Your task to perform on an android device: uninstall "Booking.com: Hotels and more" Image 0: 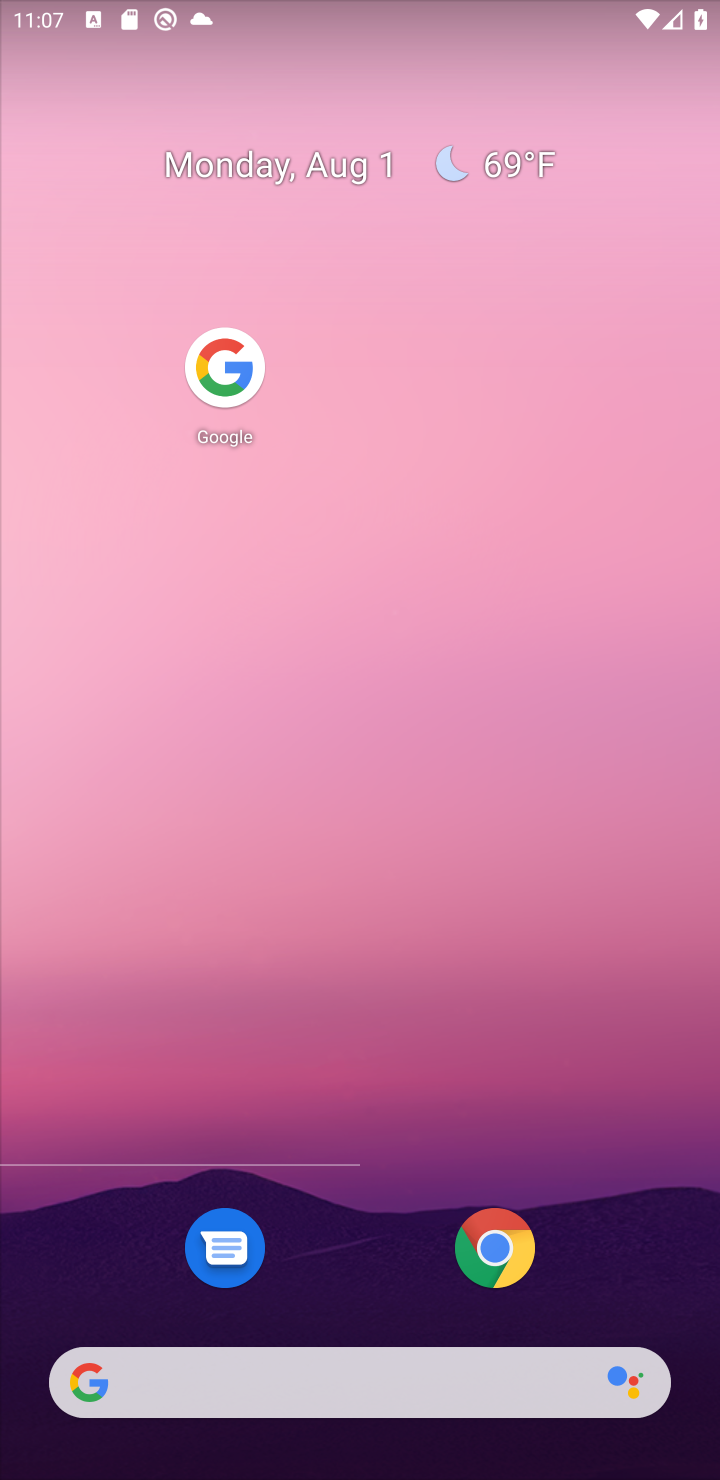
Step 0: drag from (542, 533) to (601, 183)
Your task to perform on an android device: uninstall "Booking.com: Hotels and more" Image 1: 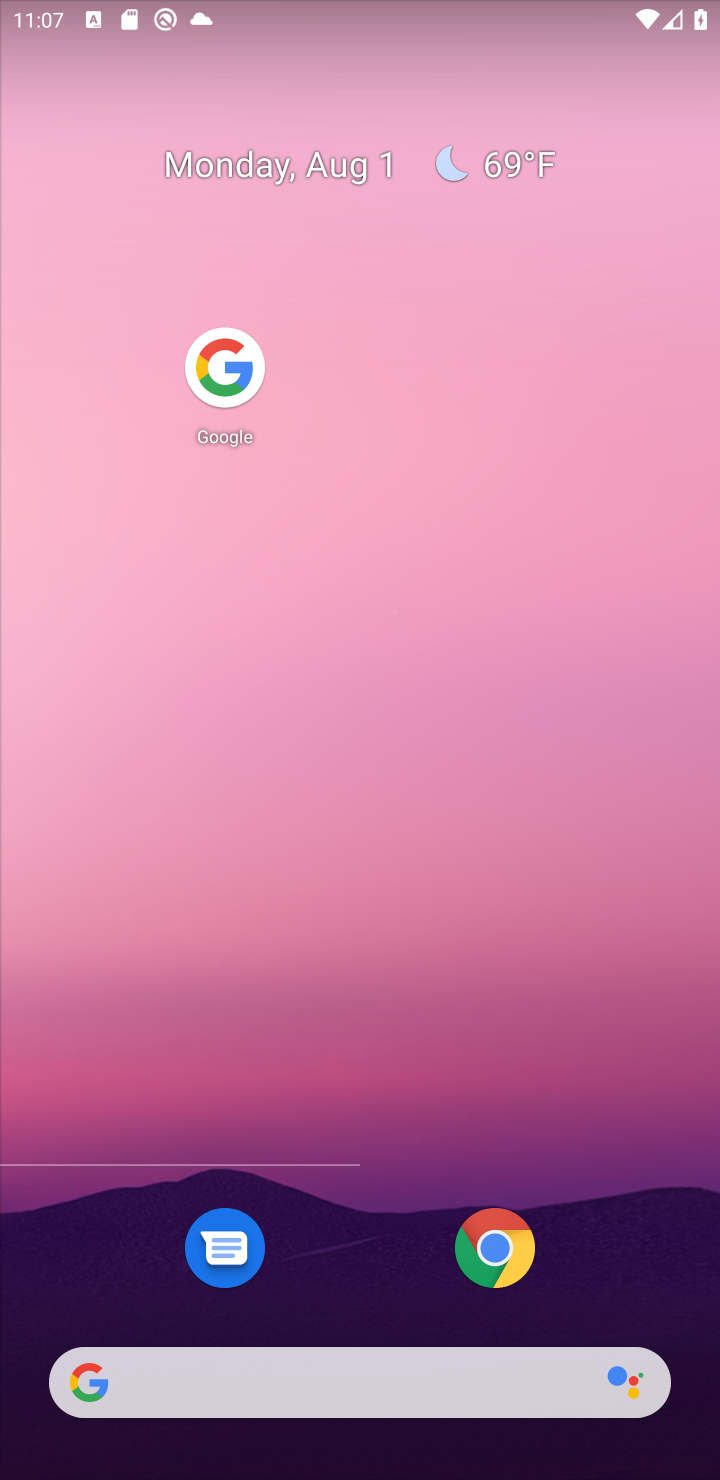
Step 1: drag from (482, 467) to (441, 0)
Your task to perform on an android device: uninstall "Booking.com: Hotels and more" Image 2: 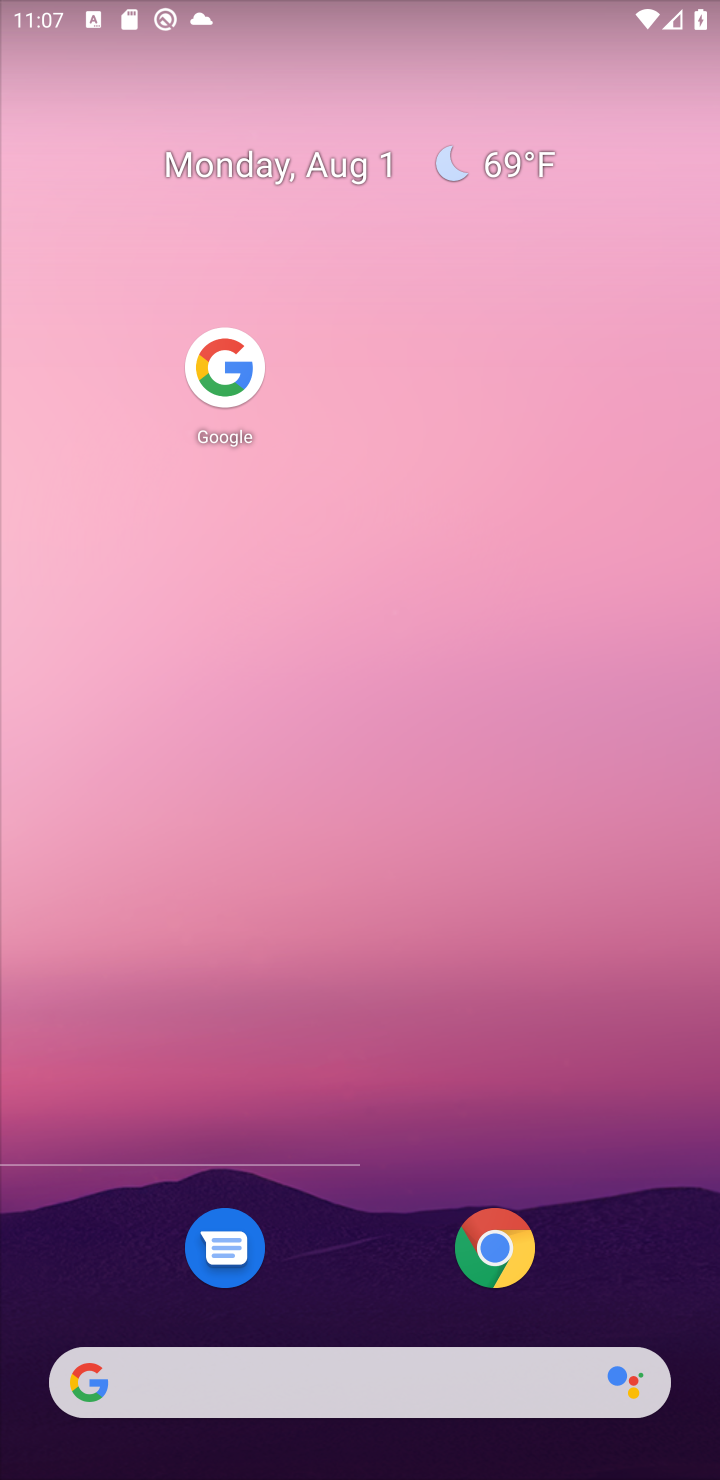
Step 2: drag from (423, 1077) to (549, 4)
Your task to perform on an android device: uninstall "Booking.com: Hotels and more" Image 3: 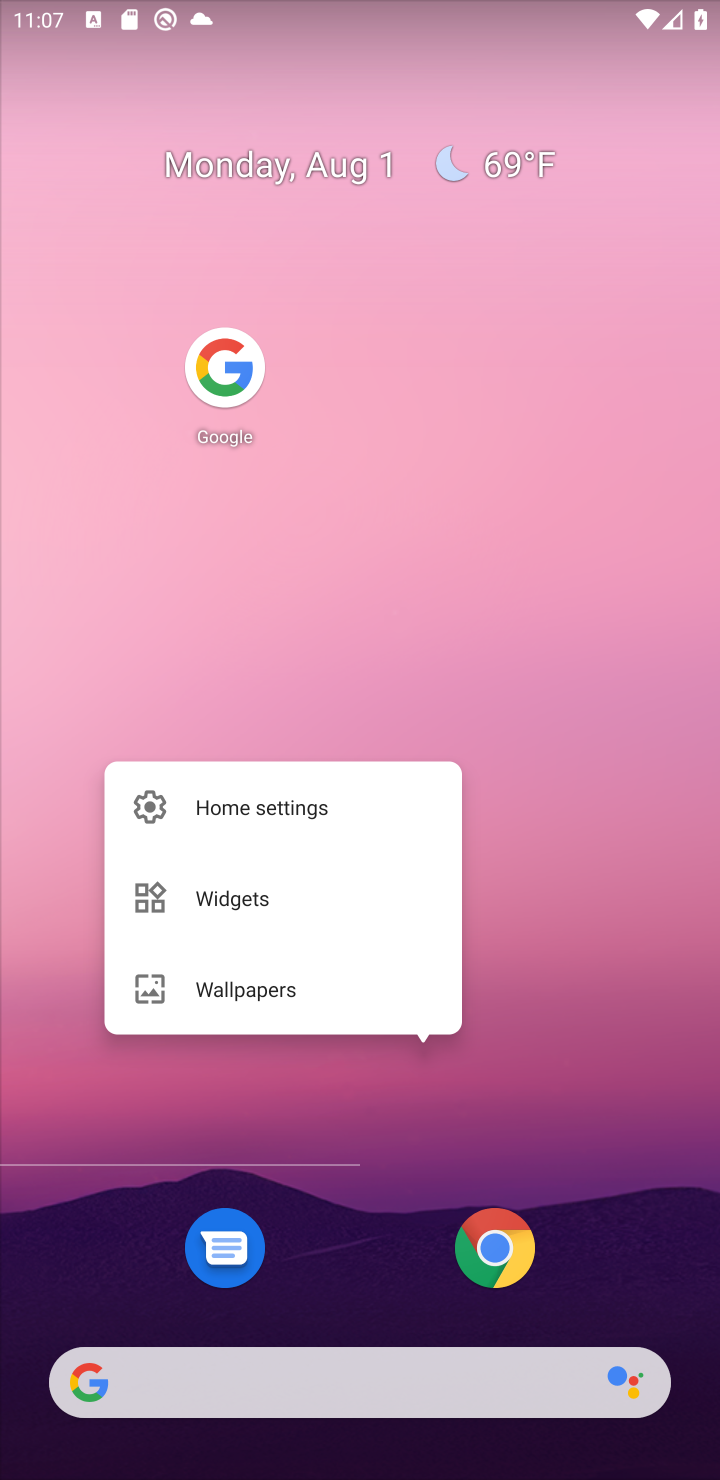
Step 3: click (532, 672)
Your task to perform on an android device: uninstall "Booking.com: Hotels and more" Image 4: 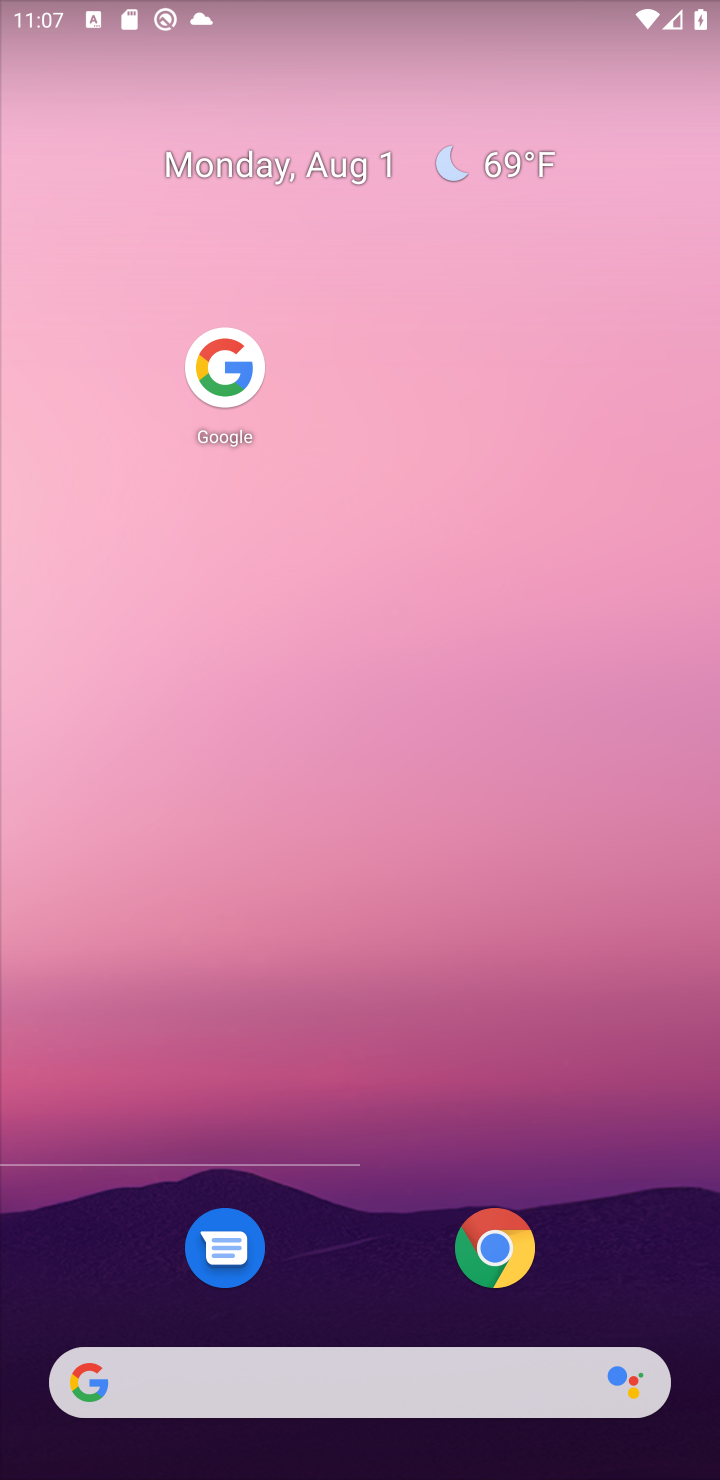
Step 4: drag from (604, 1251) to (556, 200)
Your task to perform on an android device: uninstall "Booking.com: Hotels and more" Image 5: 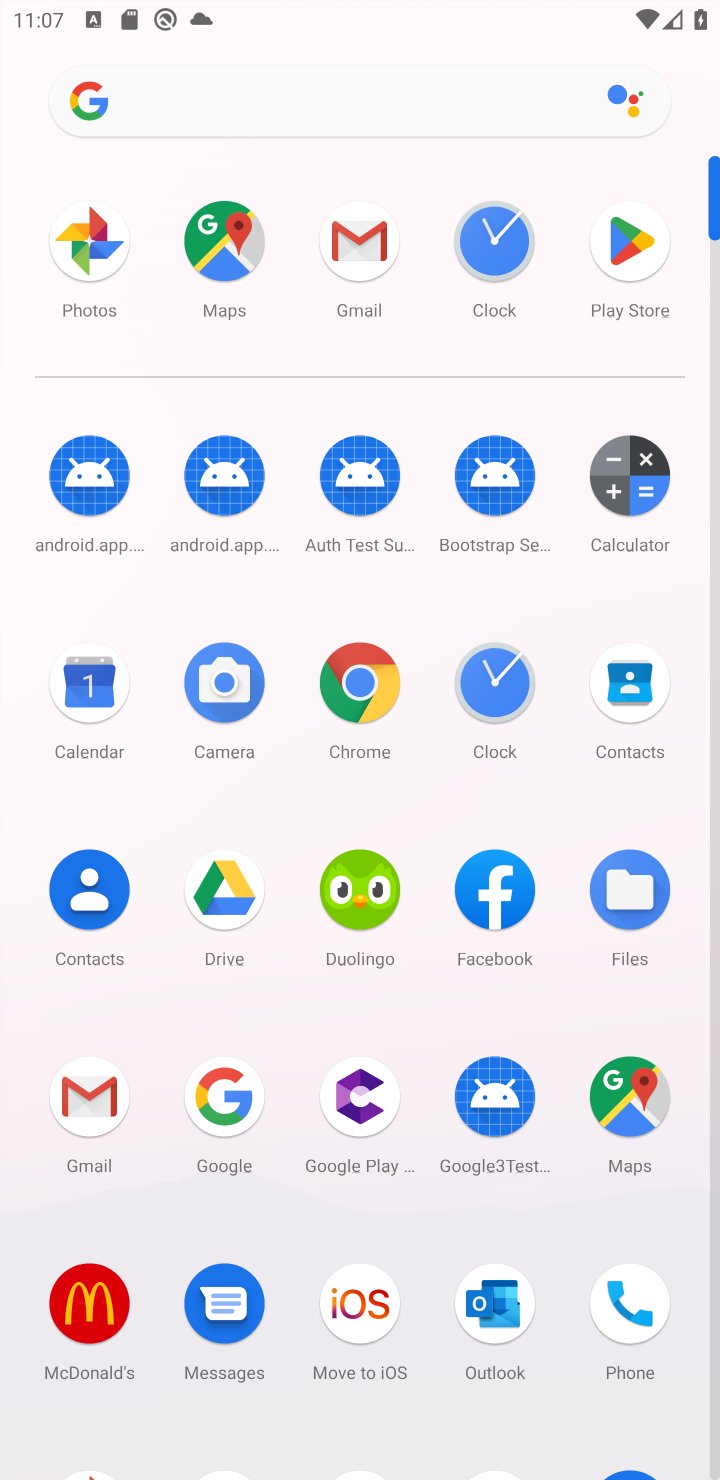
Step 5: drag from (446, 1163) to (513, 657)
Your task to perform on an android device: uninstall "Booking.com: Hotels and more" Image 6: 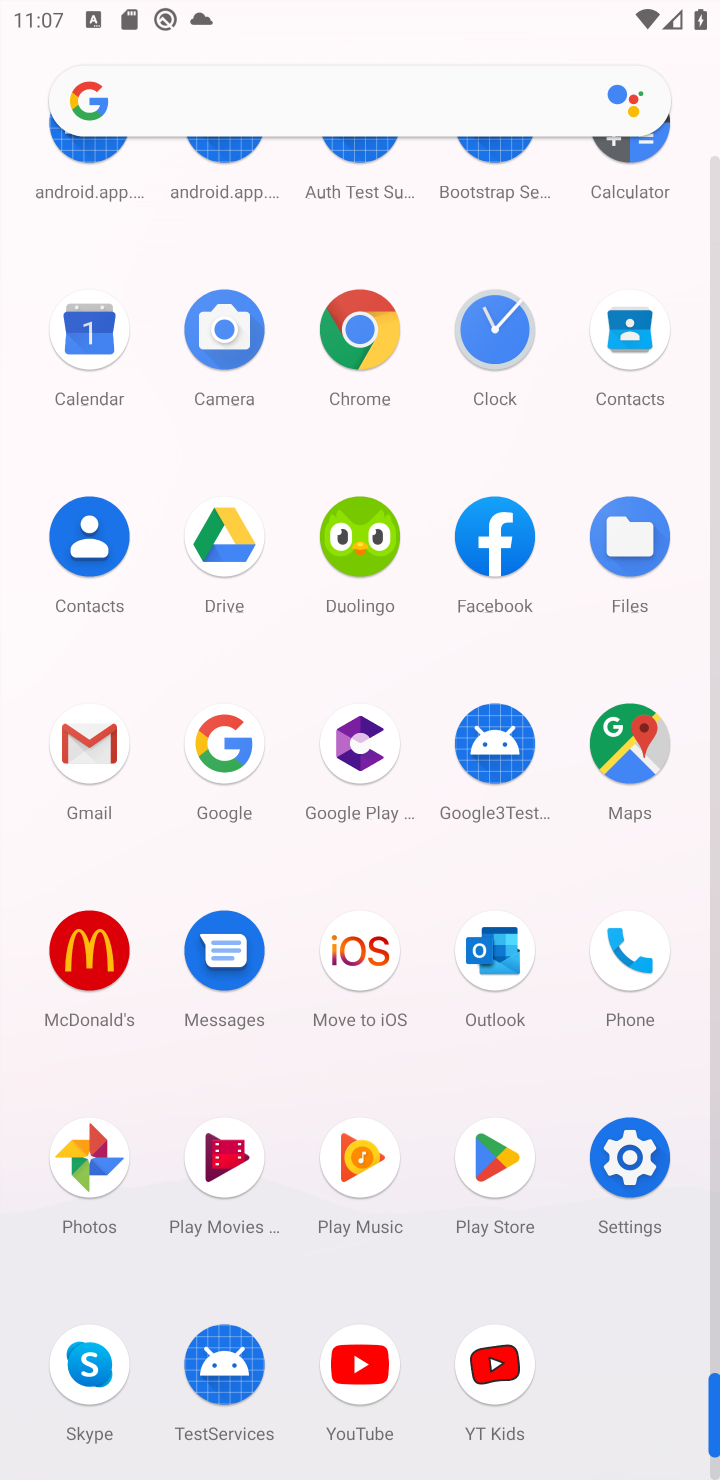
Step 6: click (497, 1143)
Your task to perform on an android device: uninstall "Booking.com: Hotels and more" Image 7: 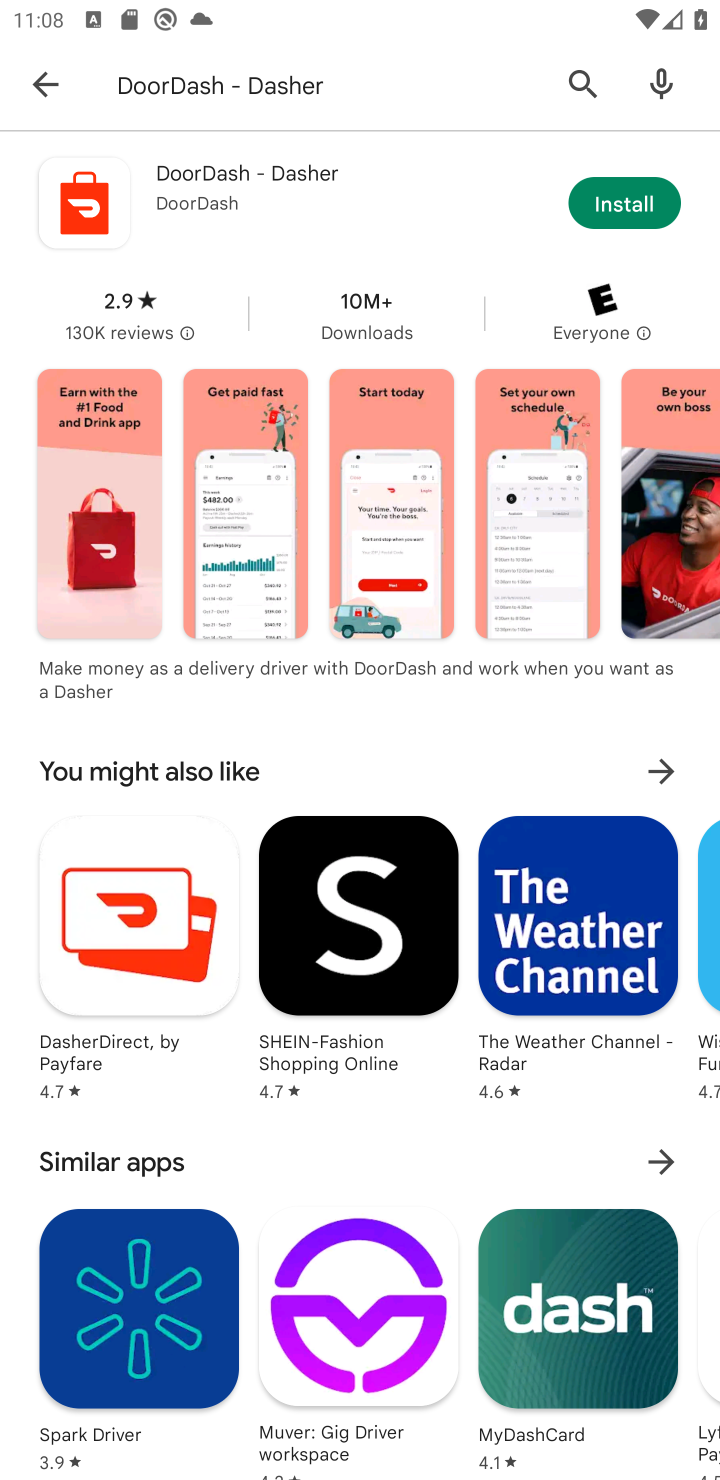
Step 7: click (379, 83)
Your task to perform on an android device: uninstall "Booking.com: Hotels and more" Image 8: 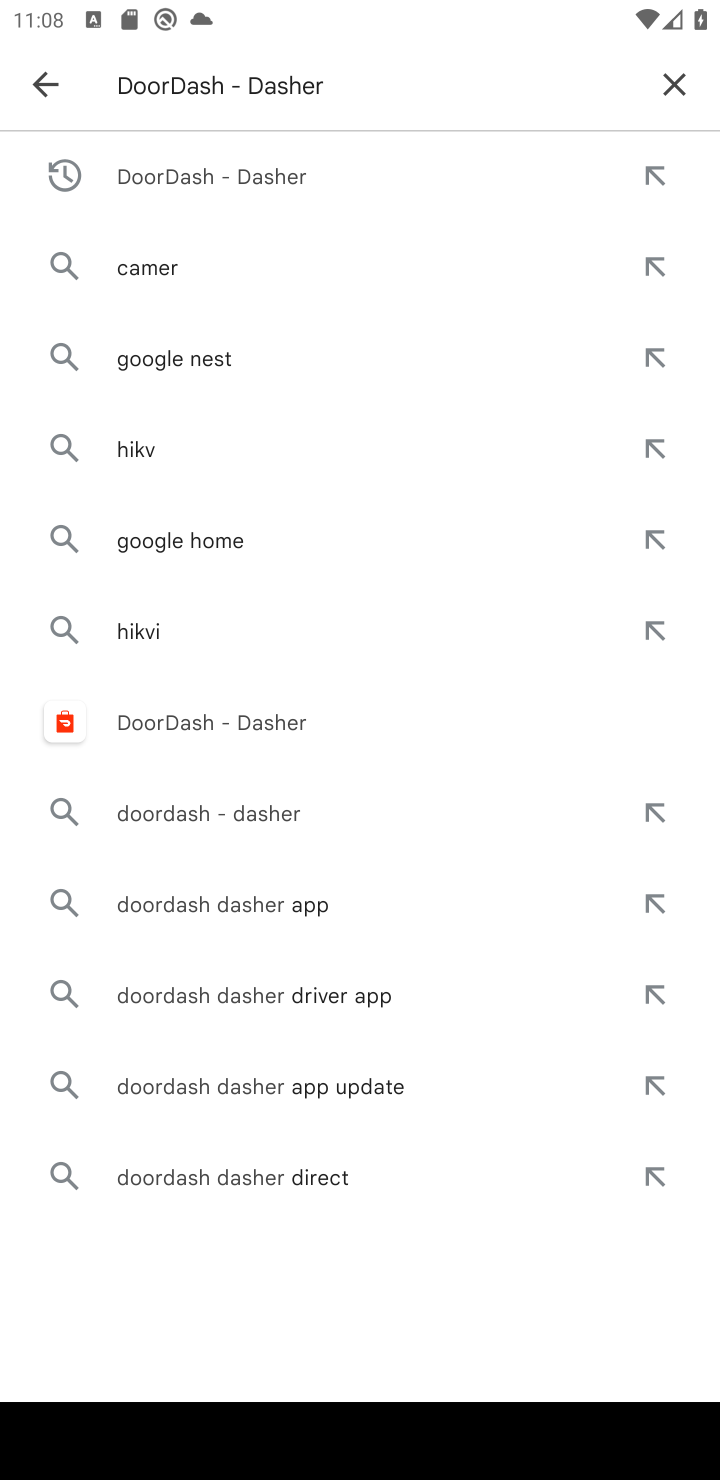
Step 8: click (680, 73)
Your task to perform on an android device: uninstall "Booking.com: Hotels and more" Image 9: 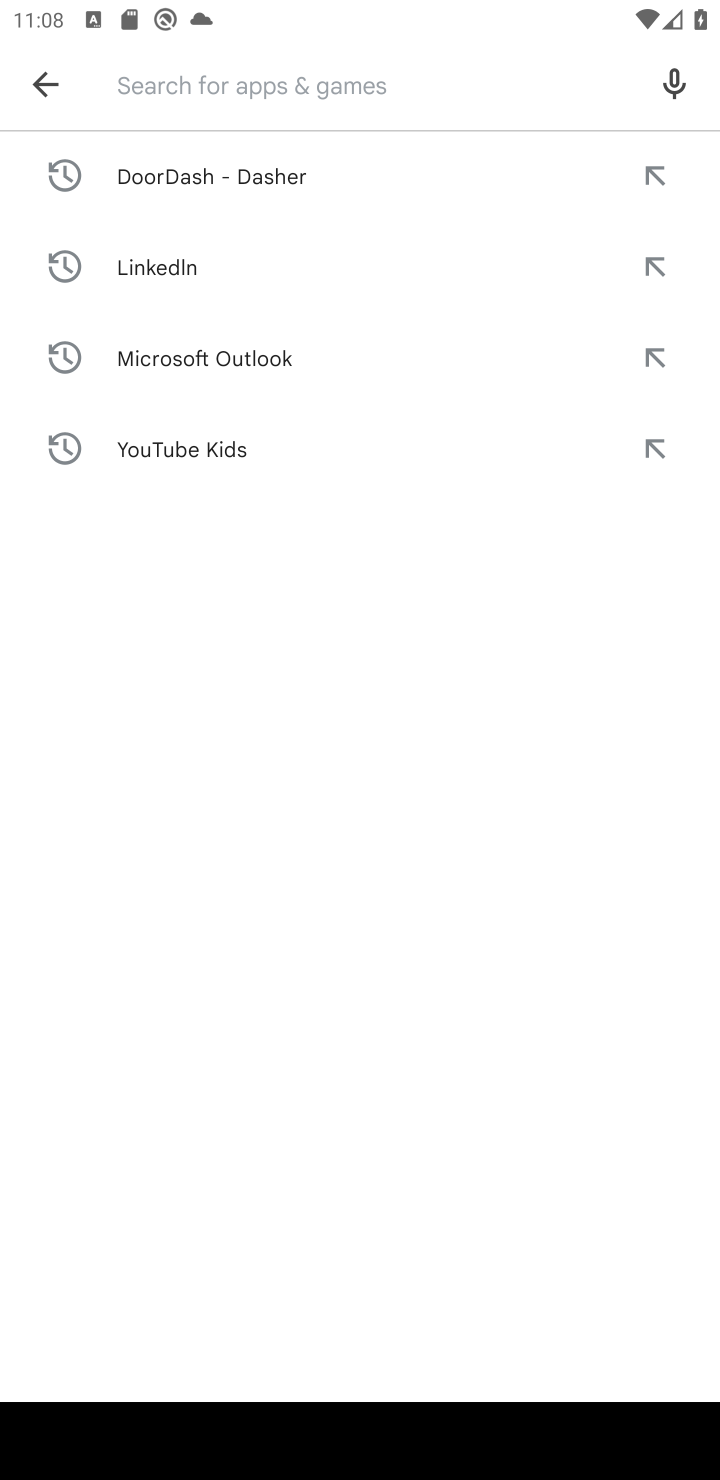
Step 9: type "Booking.com: Hotels and more"
Your task to perform on an android device: uninstall "Booking.com: Hotels and more" Image 10: 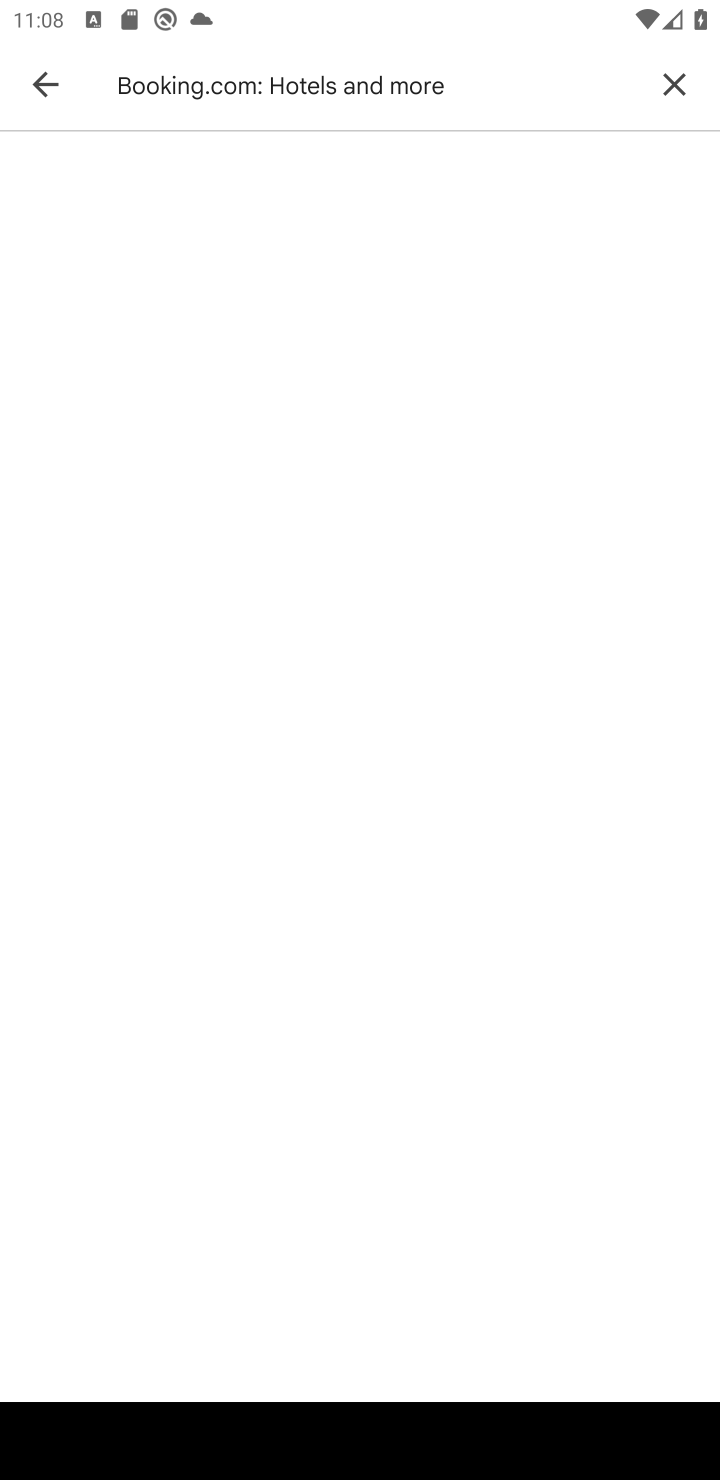
Step 10: press enter
Your task to perform on an android device: uninstall "Booking.com: Hotels and more" Image 11: 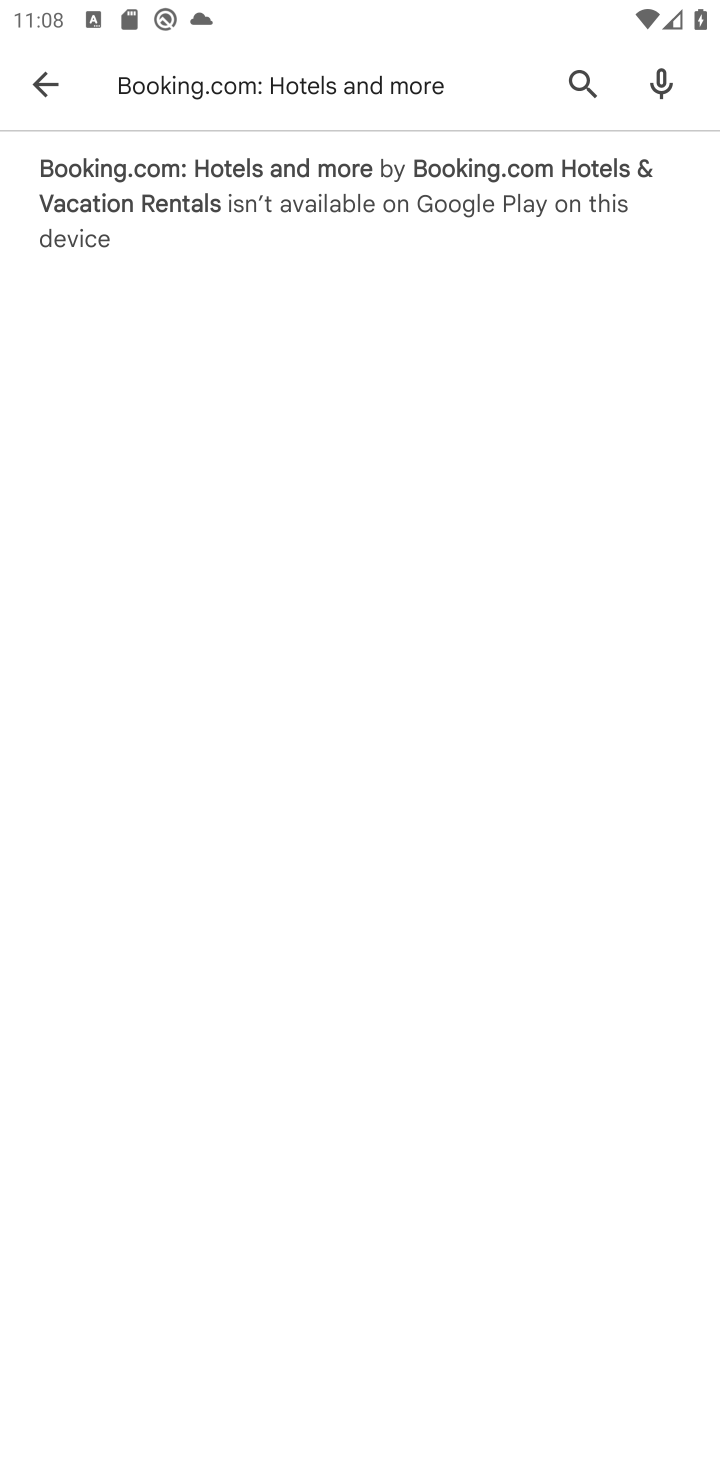
Step 11: click (243, 165)
Your task to perform on an android device: uninstall "Booking.com: Hotels and more" Image 12: 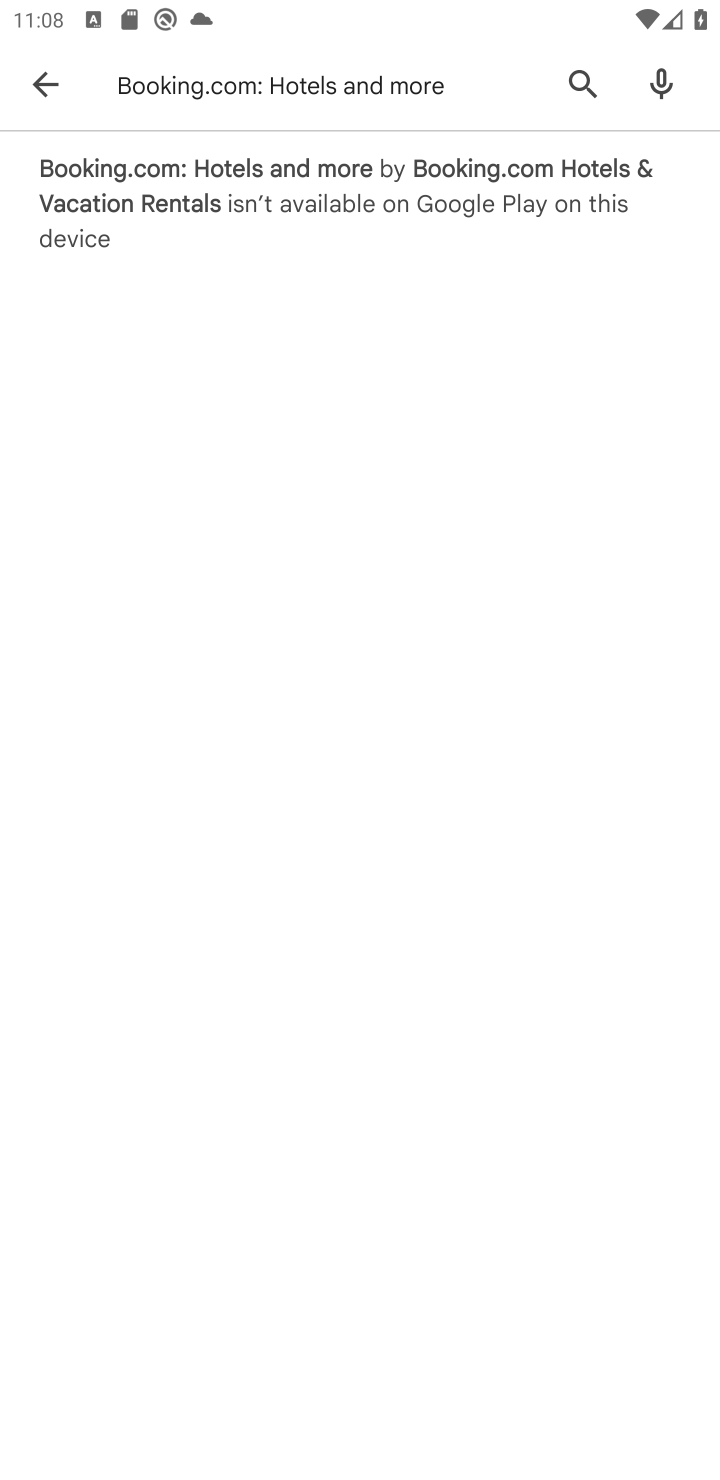
Step 12: task complete